Your task to perform on an android device: Do I have any events this weekend? Image 0: 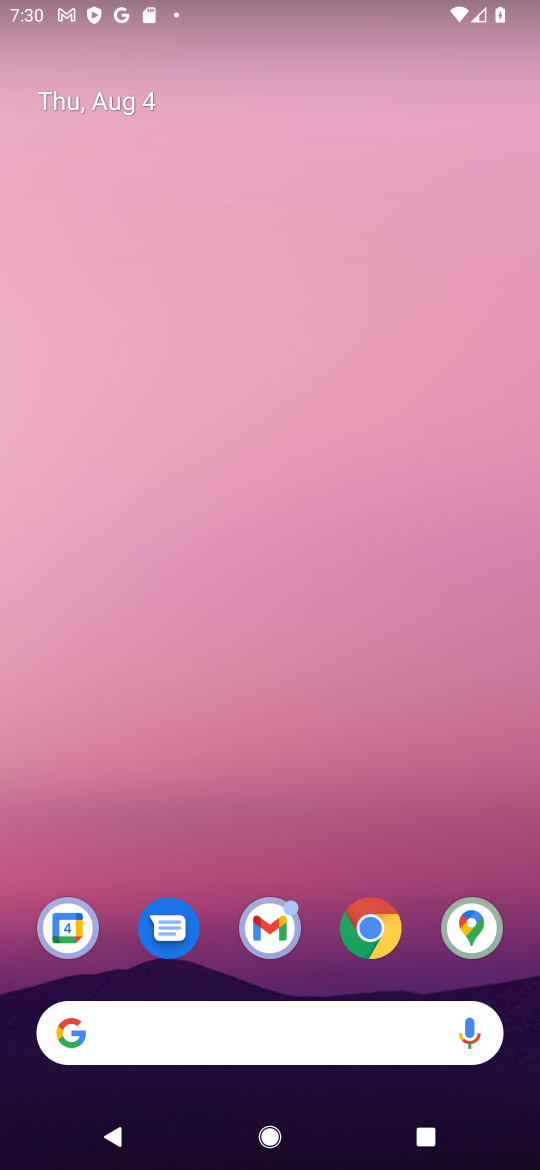
Step 0: drag from (197, 986) to (211, 296)
Your task to perform on an android device: Do I have any events this weekend? Image 1: 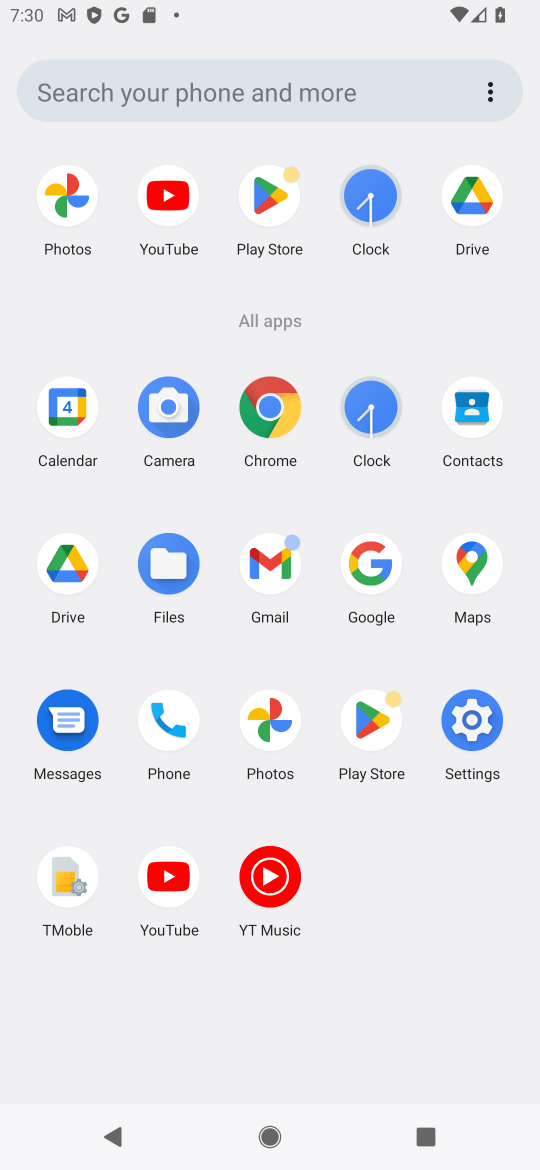
Step 1: click (82, 433)
Your task to perform on an android device: Do I have any events this weekend? Image 2: 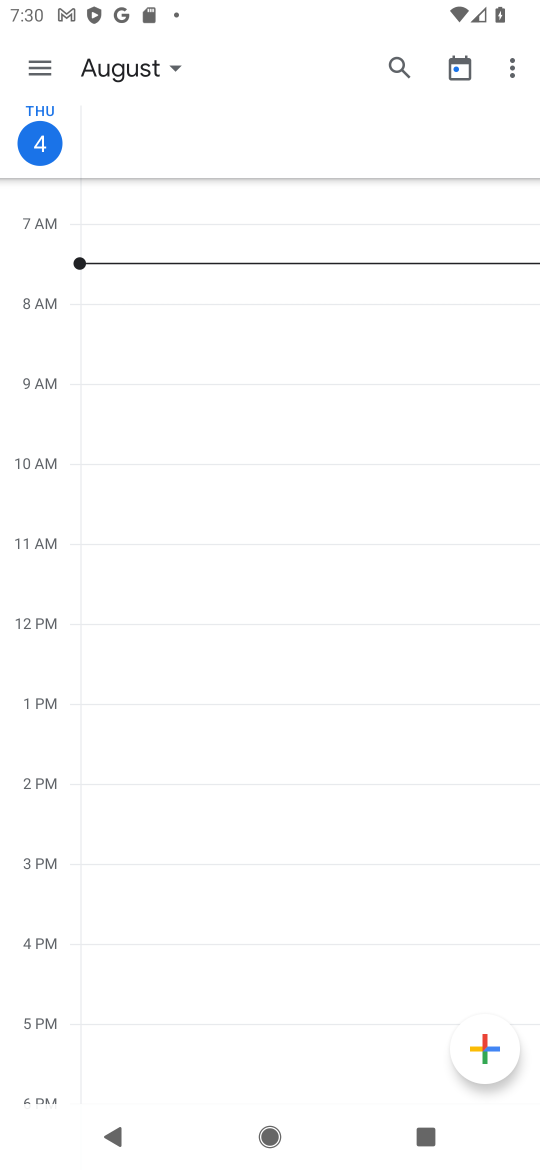
Step 2: click (25, 53)
Your task to perform on an android device: Do I have any events this weekend? Image 3: 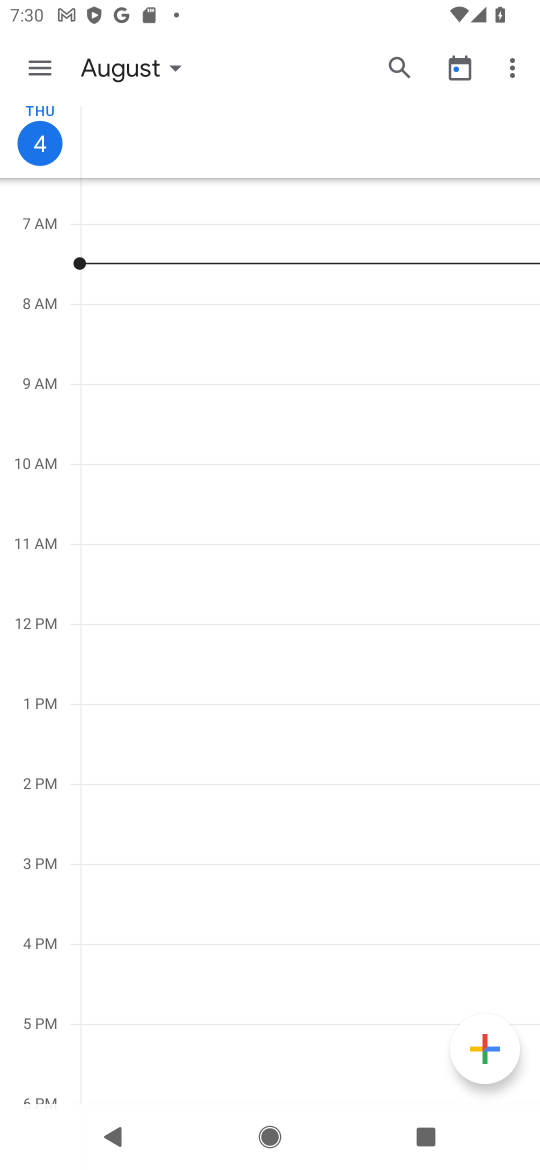
Step 3: click (38, 59)
Your task to perform on an android device: Do I have any events this weekend? Image 4: 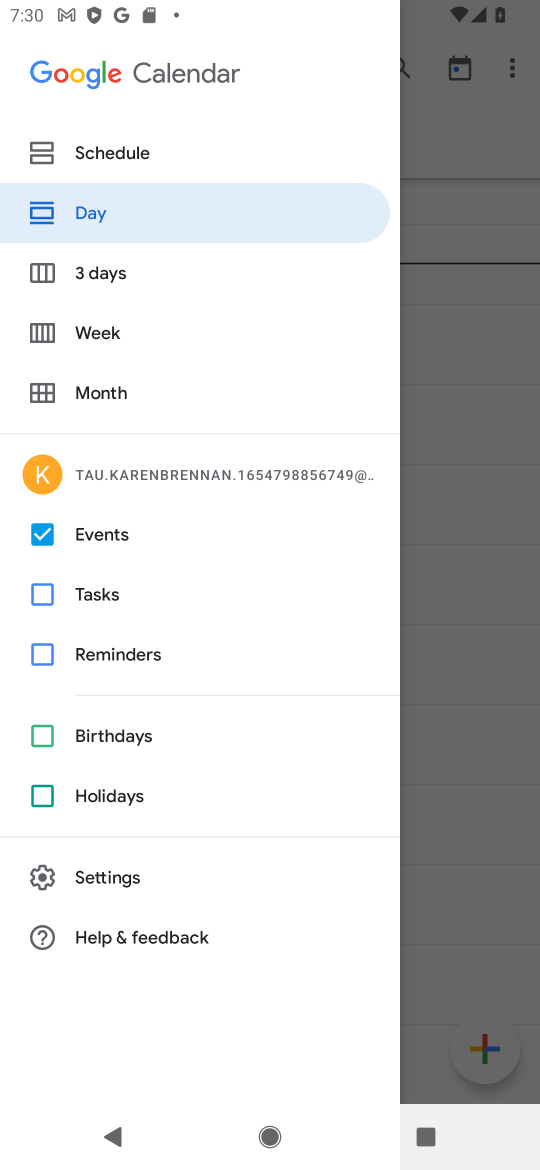
Step 4: click (108, 324)
Your task to perform on an android device: Do I have any events this weekend? Image 5: 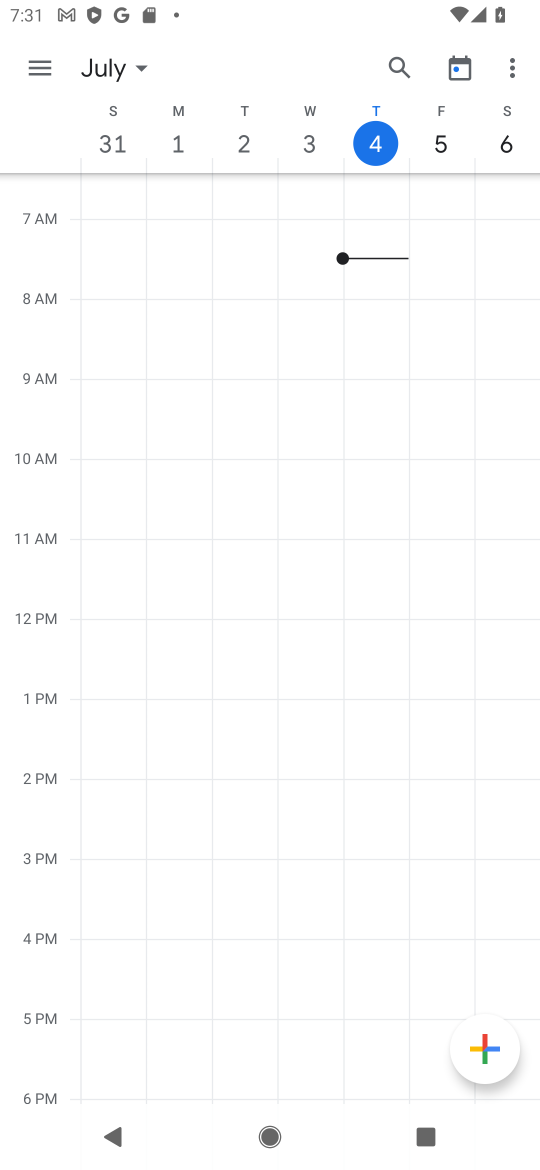
Step 5: task complete